Your task to perform on an android device: turn off airplane mode Image 0: 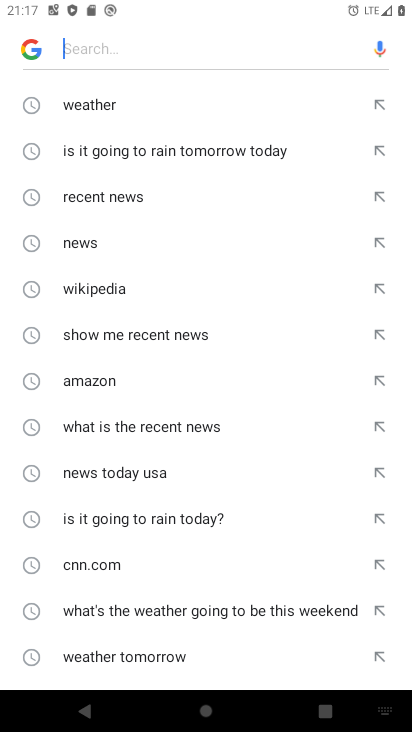
Step 0: press home button
Your task to perform on an android device: turn off airplane mode Image 1: 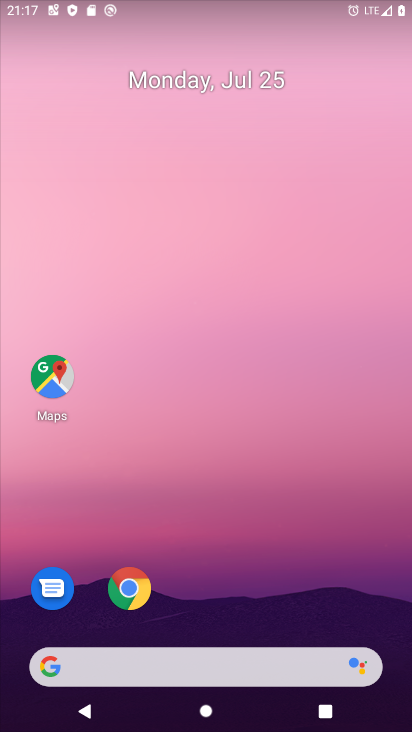
Step 1: task complete